Your task to perform on an android device: Open Chrome and go to settings Image 0: 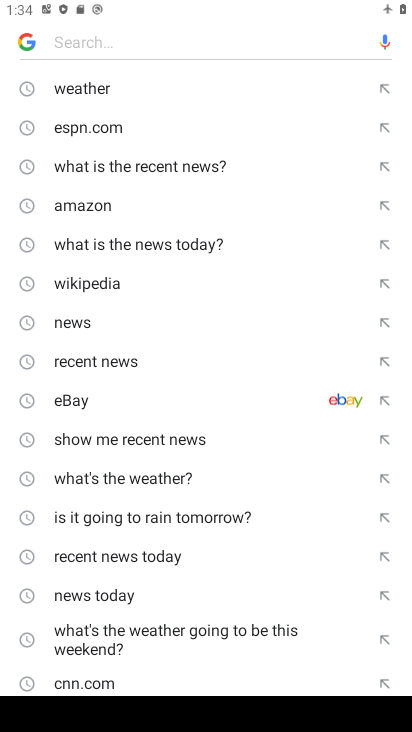
Step 0: press home button
Your task to perform on an android device: Open Chrome and go to settings Image 1: 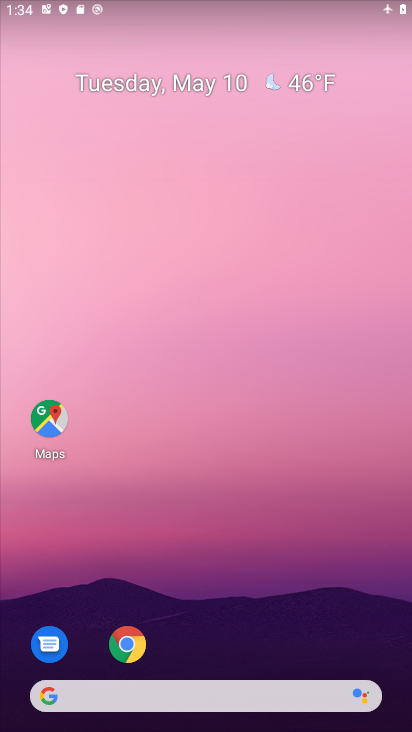
Step 1: drag from (250, 607) to (305, 214)
Your task to perform on an android device: Open Chrome and go to settings Image 2: 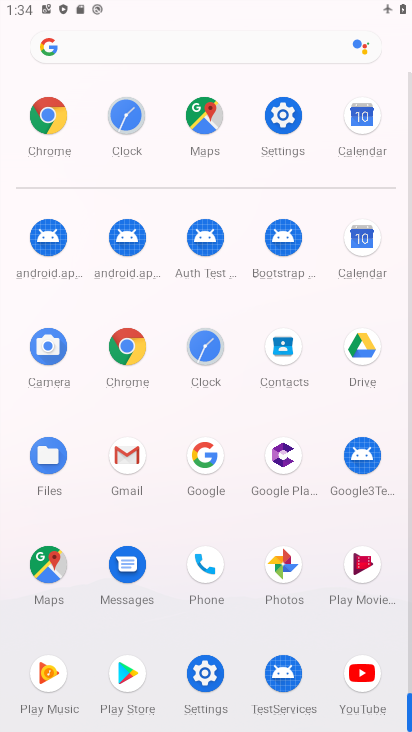
Step 2: click (130, 367)
Your task to perform on an android device: Open Chrome and go to settings Image 3: 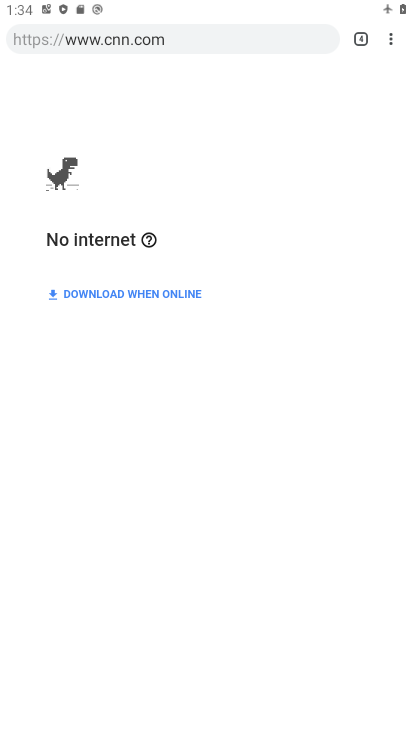
Step 3: click (391, 46)
Your task to perform on an android device: Open Chrome and go to settings Image 4: 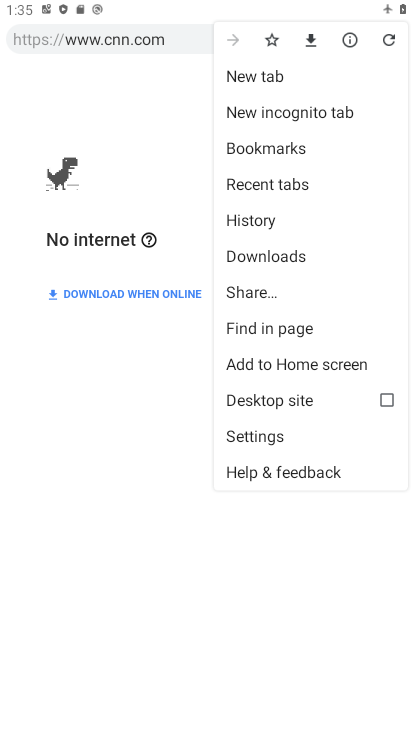
Step 4: click (288, 438)
Your task to perform on an android device: Open Chrome and go to settings Image 5: 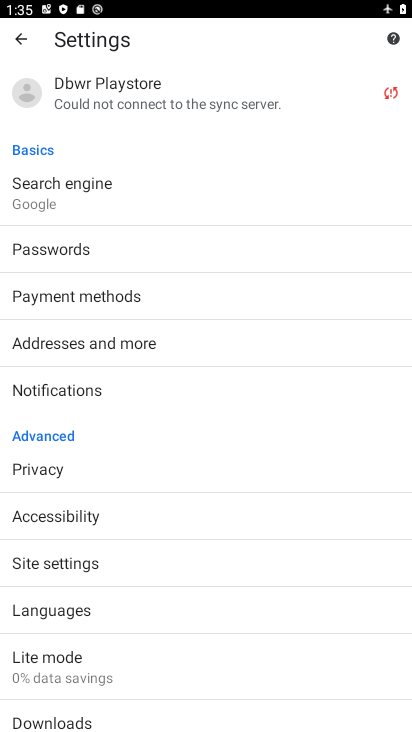
Step 5: task complete